Your task to perform on an android device: Set the phone to "Do not disturb". Image 0: 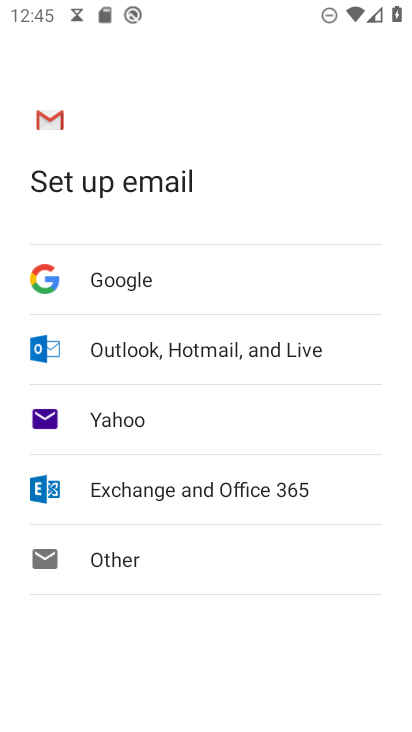
Step 0: press enter
Your task to perform on an android device: Set the phone to "Do not disturb". Image 1: 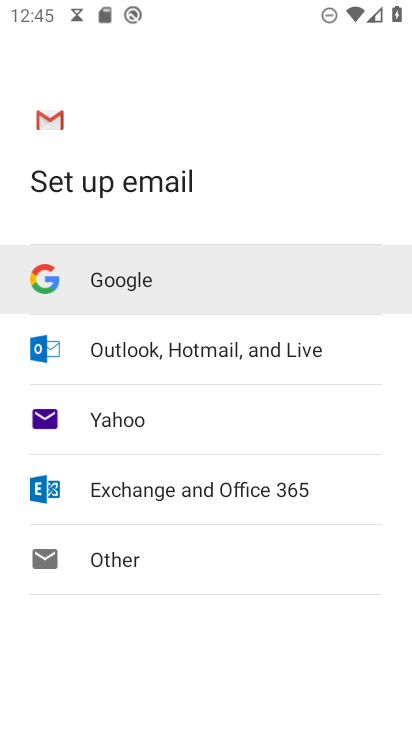
Step 1: press home button
Your task to perform on an android device: Set the phone to "Do not disturb". Image 2: 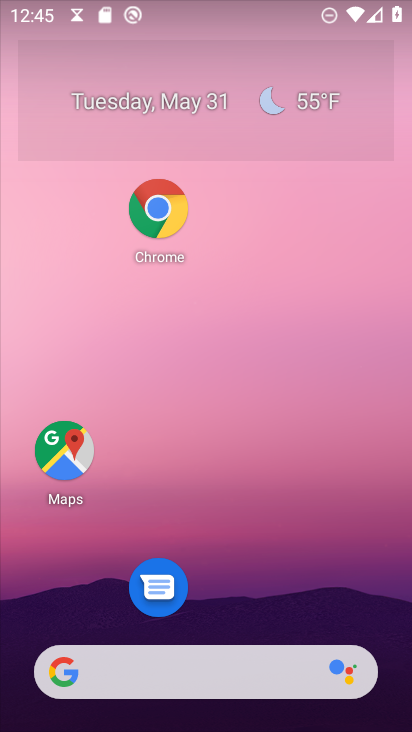
Step 2: drag from (224, 584) to (281, 200)
Your task to perform on an android device: Set the phone to "Do not disturb". Image 3: 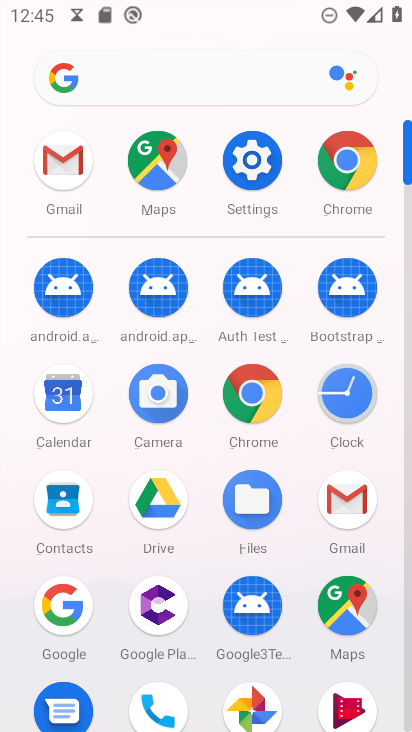
Step 3: click (269, 179)
Your task to perform on an android device: Set the phone to "Do not disturb". Image 4: 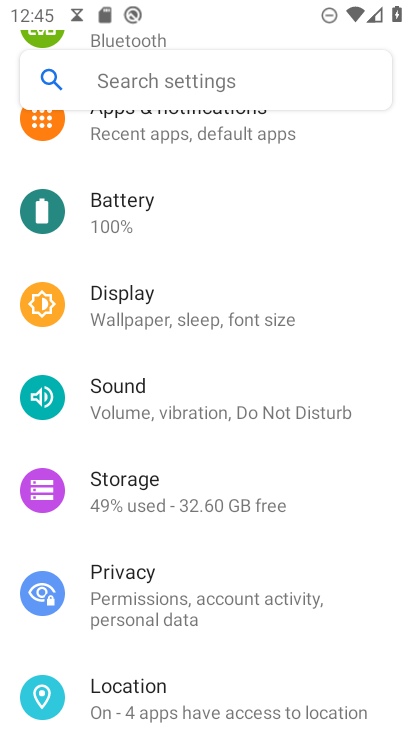
Step 4: click (215, 414)
Your task to perform on an android device: Set the phone to "Do not disturb". Image 5: 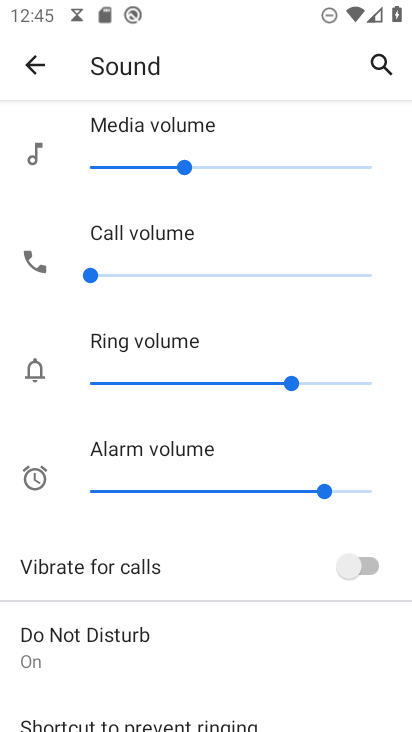
Step 5: task complete